Your task to perform on an android device: delete location history Image 0: 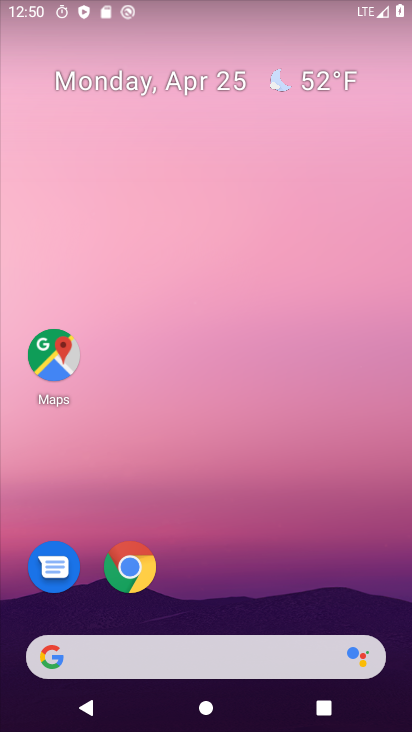
Step 0: click (46, 355)
Your task to perform on an android device: delete location history Image 1: 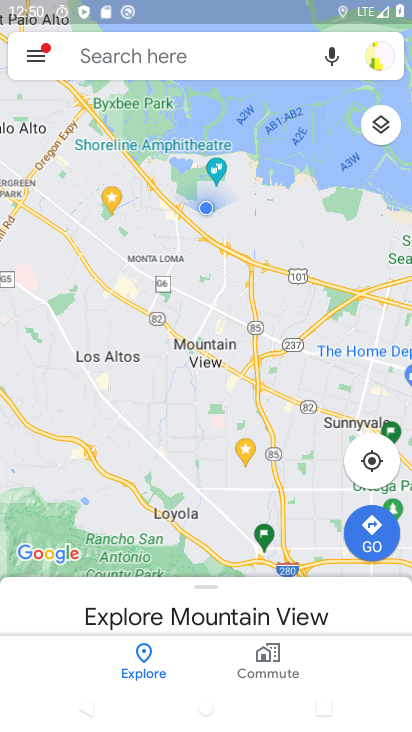
Step 1: click (36, 52)
Your task to perform on an android device: delete location history Image 2: 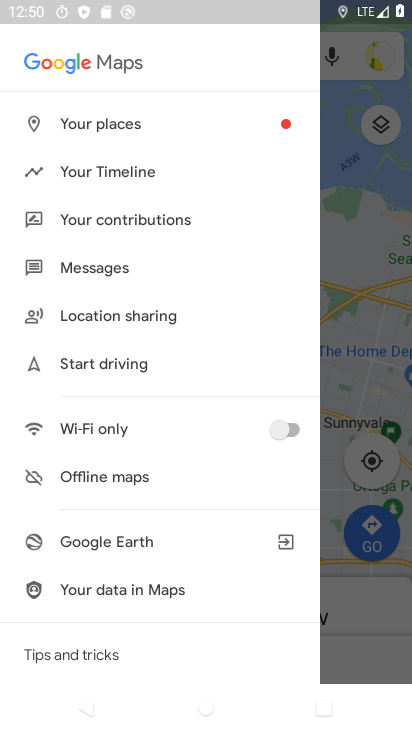
Step 2: click (99, 163)
Your task to perform on an android device: delete location history Image 3: 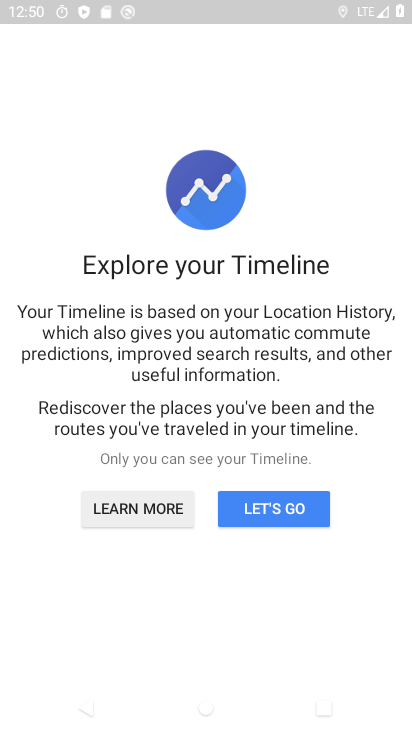
Step 3: click (246, 501)
Your task to perform on an android device: delete location history Image 4: 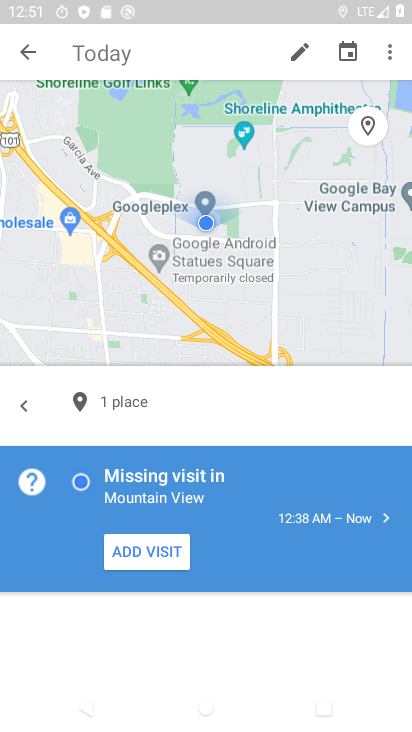
Step 4: click (390, 53)
Your task to perform on an android device: delete location history Image 5: 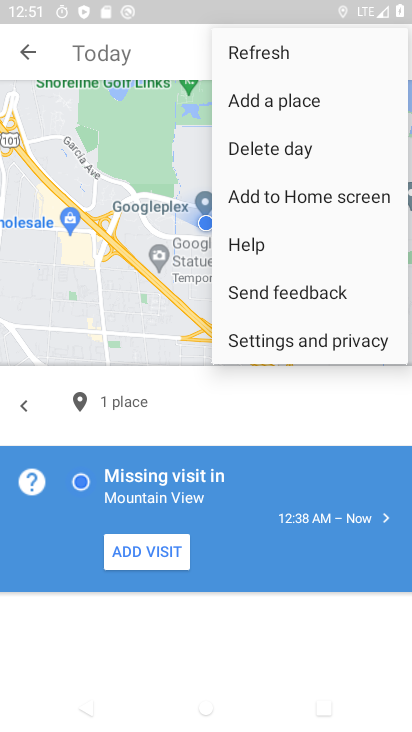
Step 5: click (346, 331)
Your task to perform on an android device: delete location history Image 6: 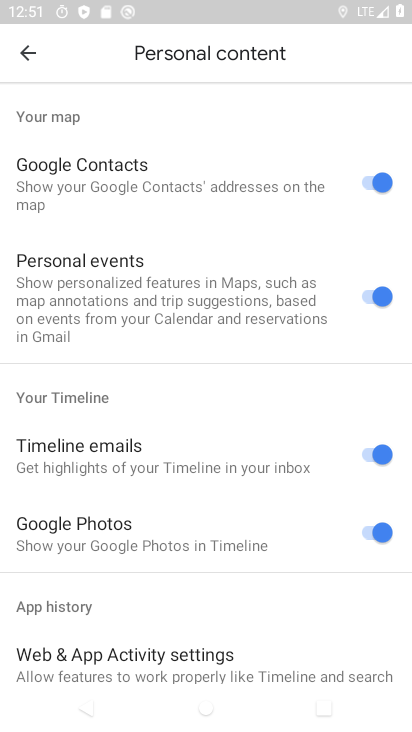
Step 6: drag from (209, 594) to (263, 122)
Your task to perform on an android device: delete location history Image 7: 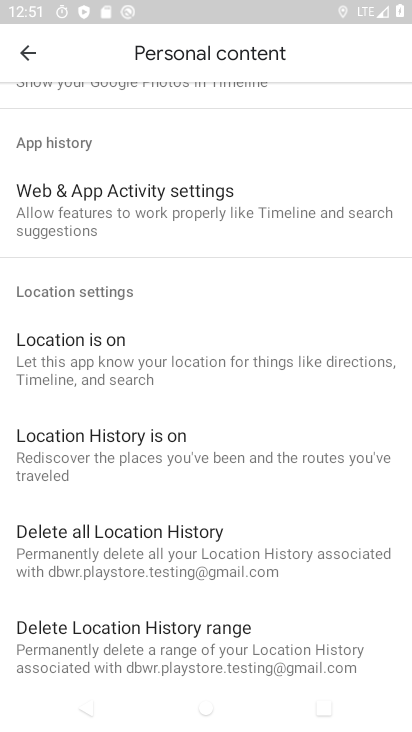
Step 7: click (216, 548)
Your task to perform on an android device: delete location history Image 8: 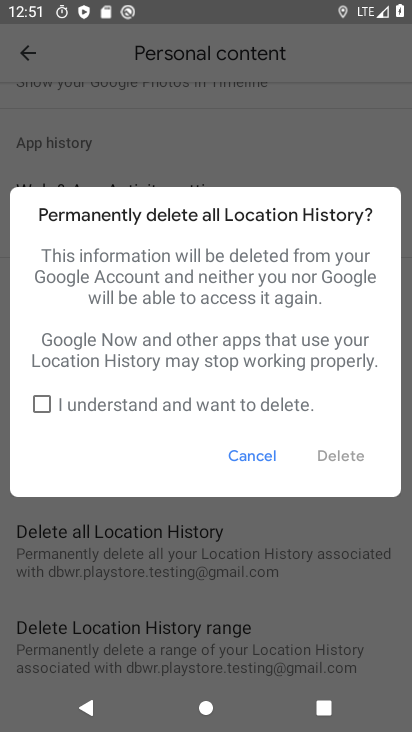
Step 8: click (39, 400)
Your task to perform on an android device: delete location history Image 9: 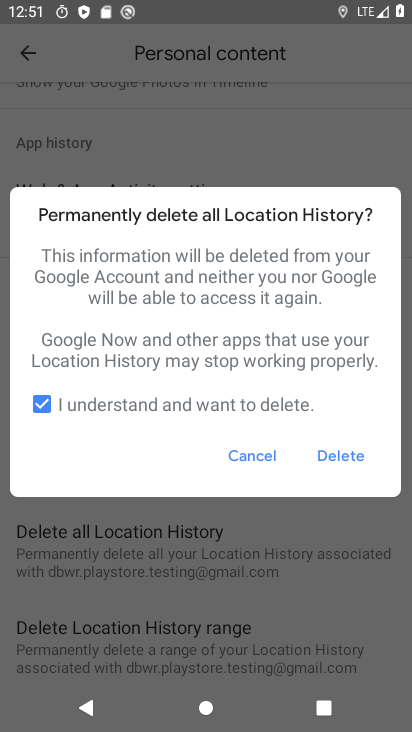
Step 9: click (348, 455)
Your task to perform on an android device: delete location history Image 10: 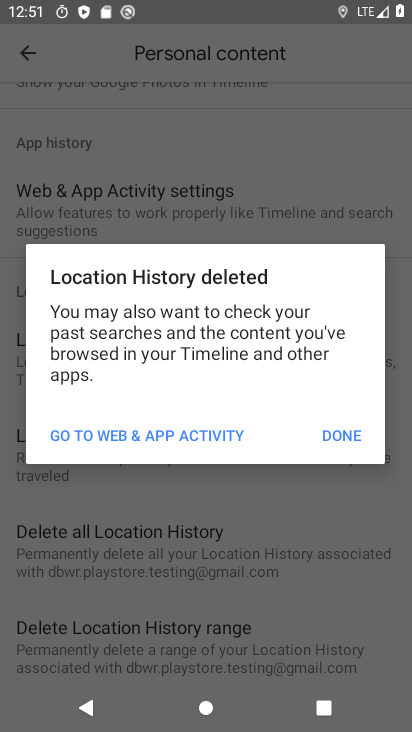
Step 10: click (355, 434)
Your task to perform on an android device: delete location history Image 11: 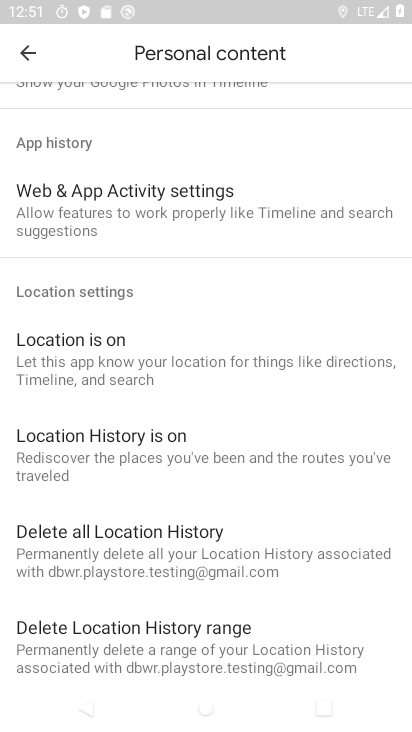
Step 11: task complete